Your task to perform on an android device: open chrome and create a bookmark for the current page Image 0: 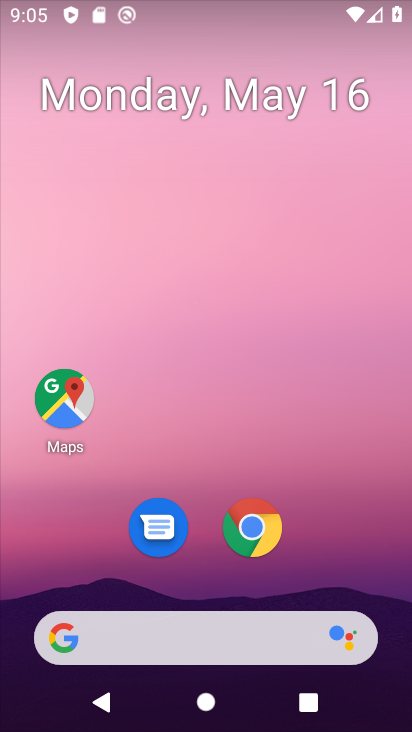
Step 0: click (262, 531)
Your task to perform on an android device: open chrome and create a bookmark for the current page Image 1: 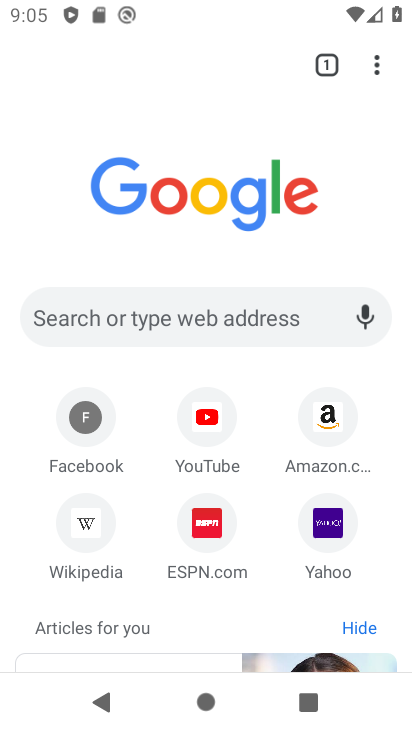
Step 1: click (373, 63)
Your task to perform on an android device: open chrome and create a bookmark for the current page Image 2: 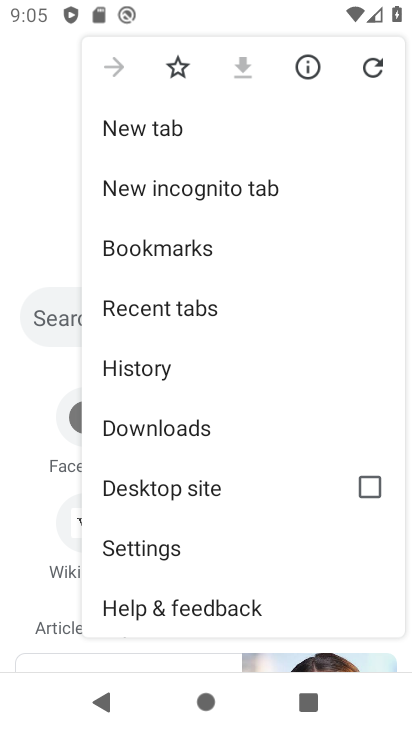
Step 2: click (179, 65)
Your task to perform on an android device: open chrome and create a bookmark for the current page Image 3: 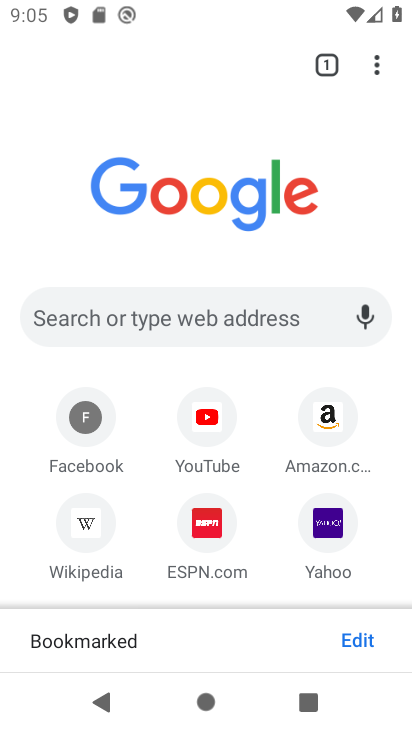
Step 3: task complete